Your task to perform on an android device: turn notification dots off Image 0: 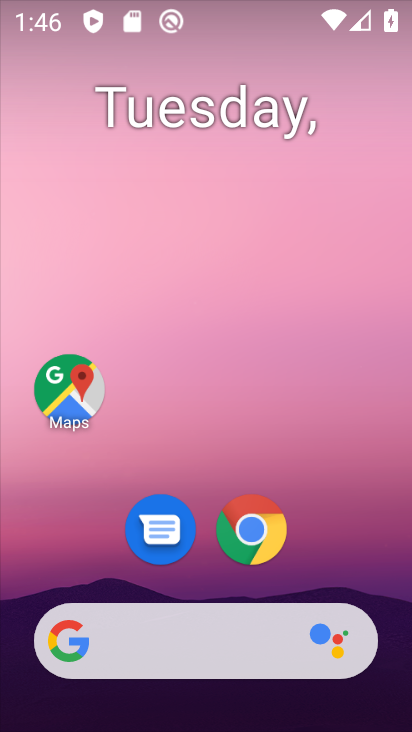
Step 0: drag from (390, 635) to (299, 65)
Your task to perform on an android device: turn notification dots off Image 1: 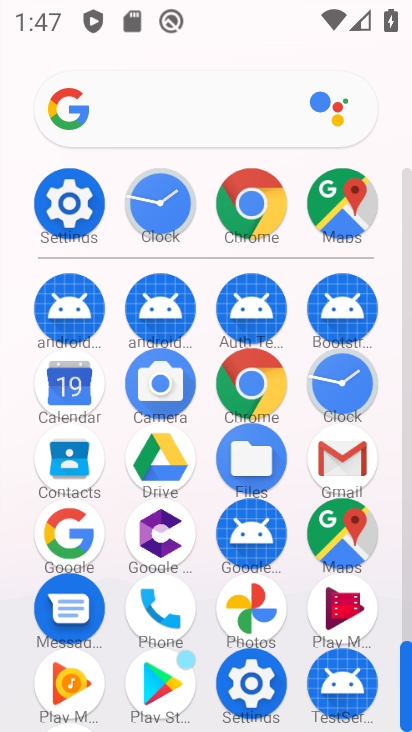
Step 1: click (75, 226)
Your task to perform on an android device: turn notification dots off Image 2: 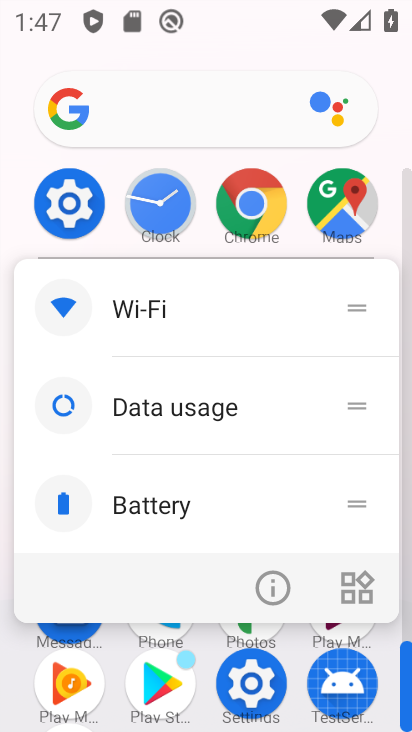
Step 2: click (69, 215)
Your task to perform on an android device: turn notification dots off Image 3: 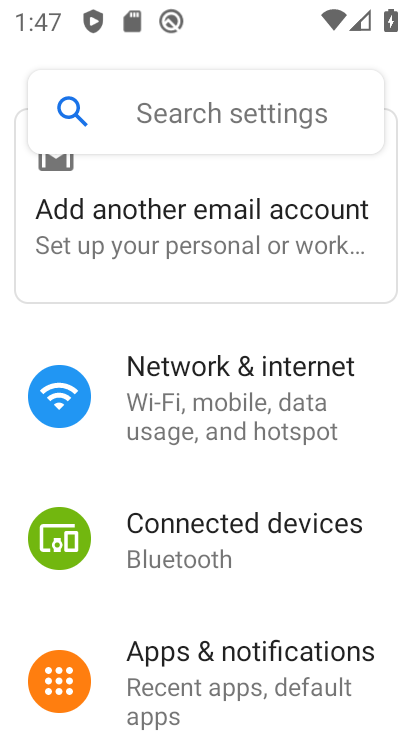
Step 3: drag from (212, 609) to (274, 196)
Your task to perform on an android device: turn notification dots off Image 4: 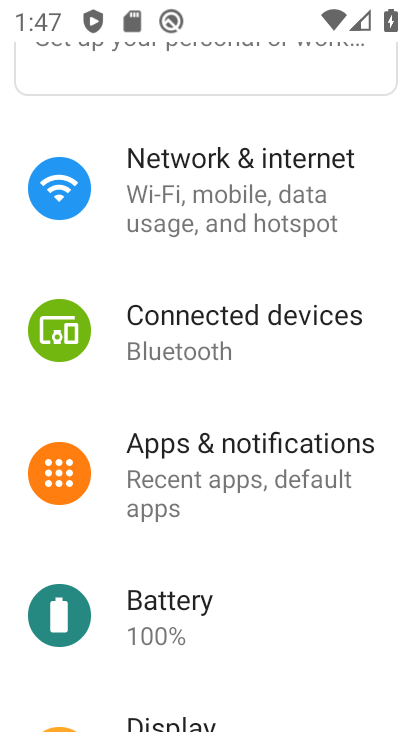
Step 4: click (246, 464)
Your task to perform on an android device: turn notification dots off Image 5: 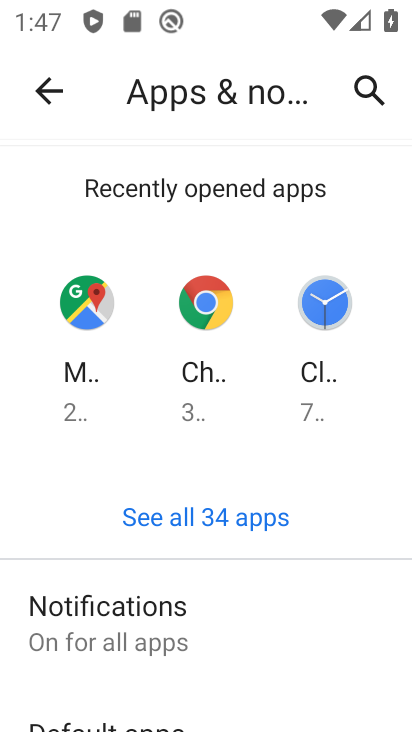
Step 5: click (186, 643)
Your task to perform on an android device: turn notification dots off Image 6: 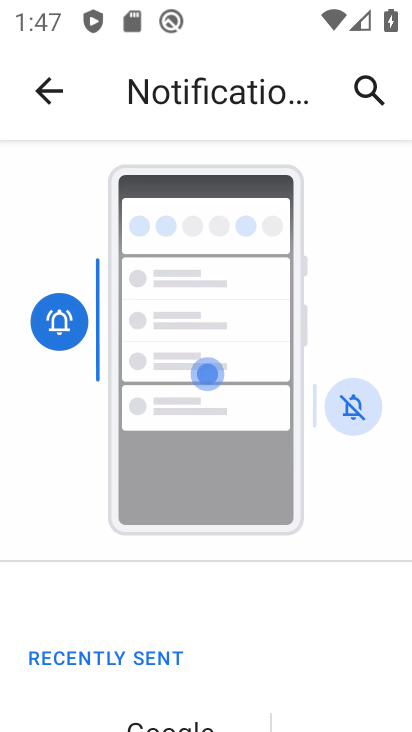
Step 6: drag from (260, 648) to (250, 84)
Your task to perform on an android device: turn notification dots off Image 7: 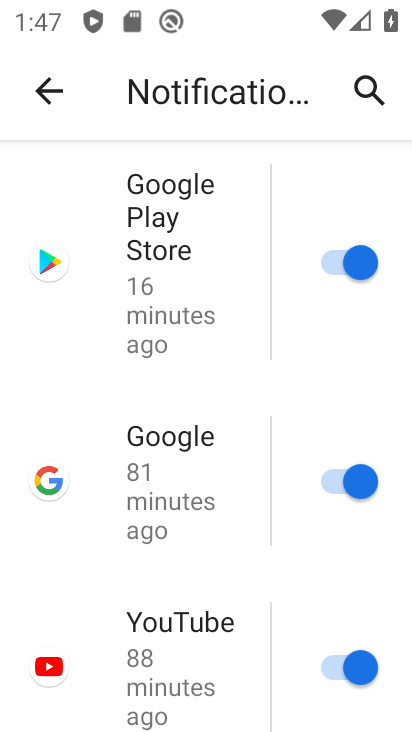
Step 7: drag from (186, 597) to (168, 83)
Your task to perform on an android device: turn notification dots off Image 8: 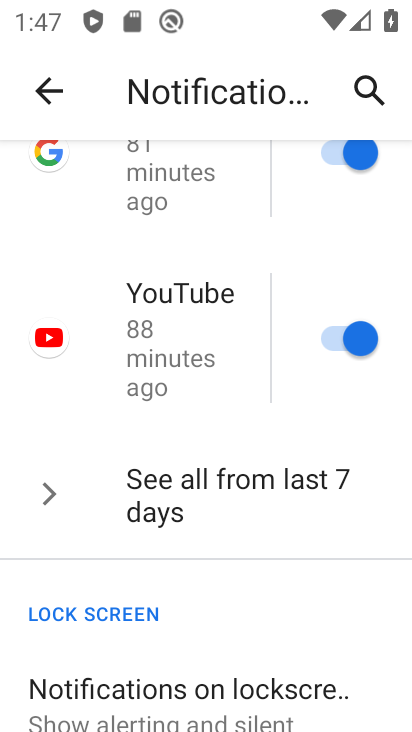
Step 8: drag from (171, 647) to (171, 113)
Your task to perform on an android device: turn notification dots off Image 9: 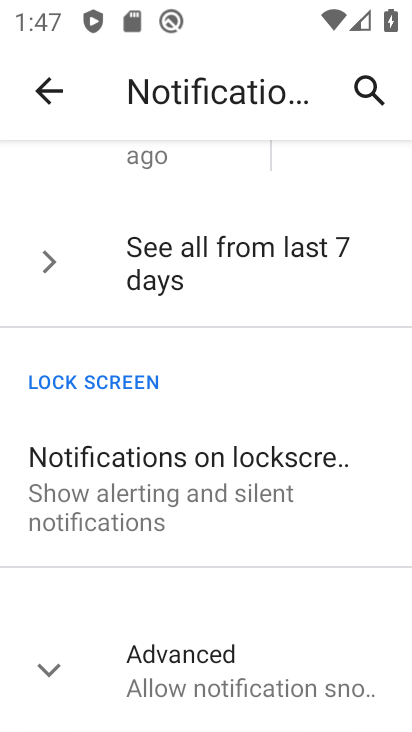
Step 9: click (44, 661)
Your task to perform on an android device: turn notification dots off Image 10: 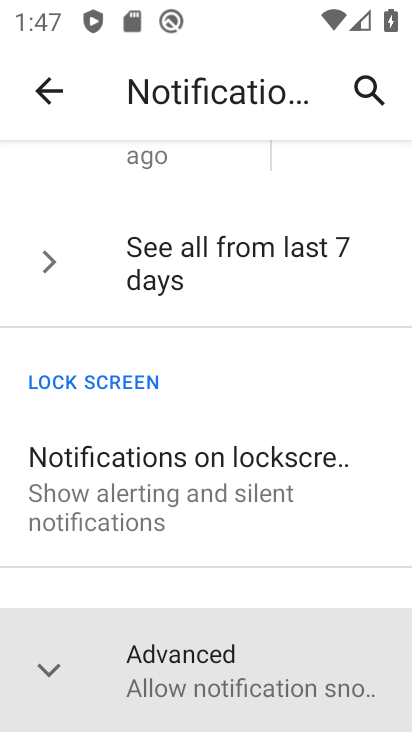
Step 10: drag from (170, 625) to (207, 159)
Your task to perform on an android device: turn notification dots off Image 11: 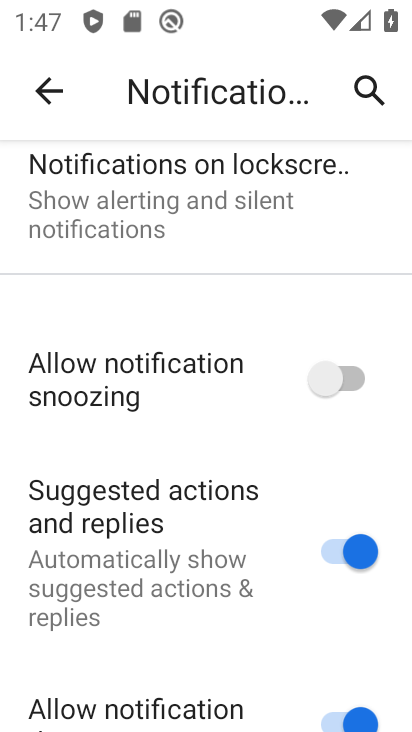
Step 11: drag from (192, 424) to (193, 205)
Your task to perform on an android device: turn notification dots off Image 12: 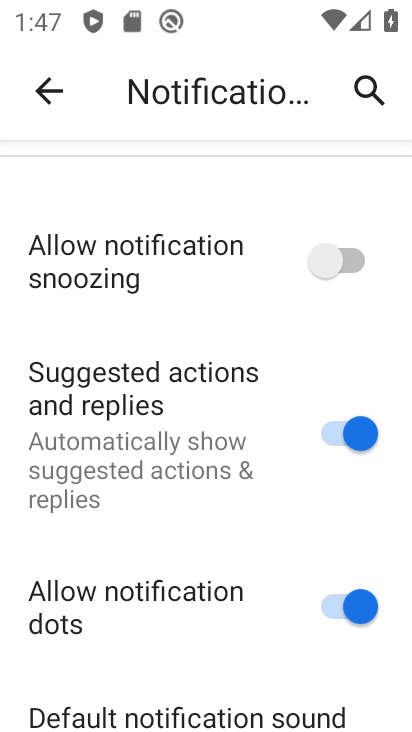
Step 12: drag from (224, 623) to (272, 272)
Your task to perform on an android device: turn notification dots off Image 13: 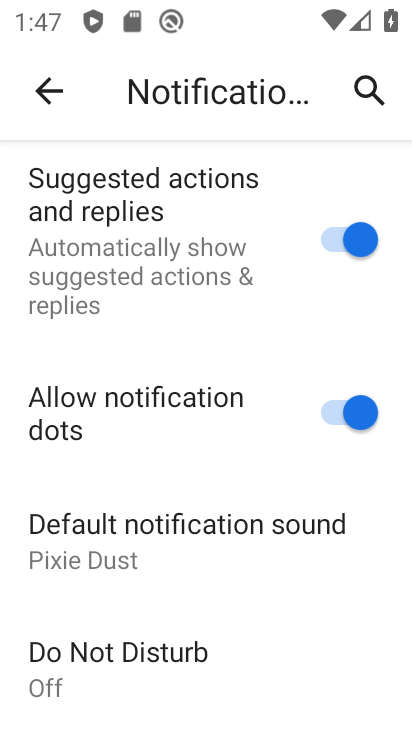
Step 13: click (264, 419)
Your task to perform on an android device: turn notification dots off Image 14: 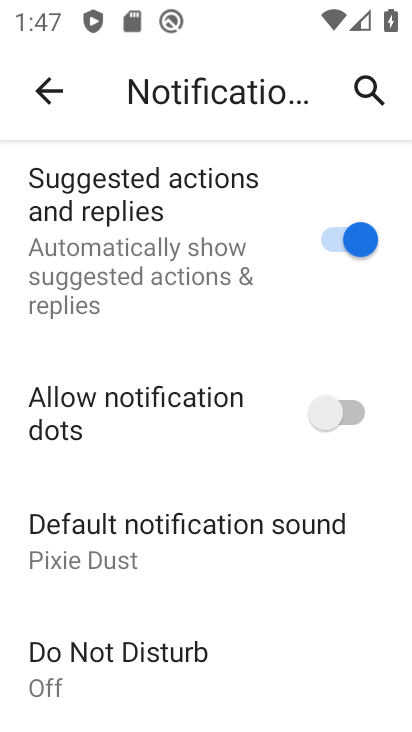
Step 14: task complete